Your task to perform on an android device: Open maps Image 0: 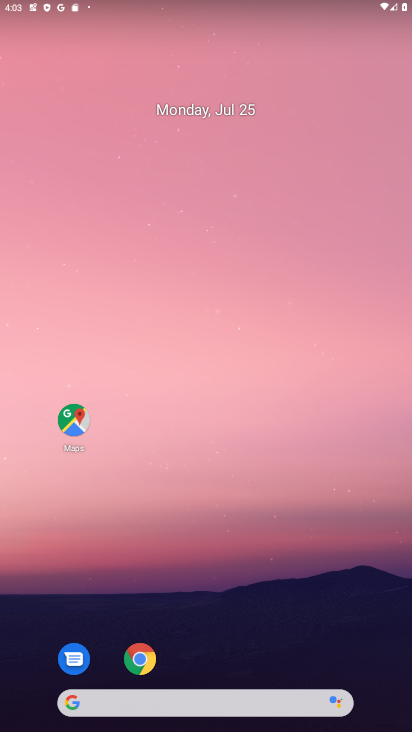
Step 0: click (75, 423)
Your task to perform on an android device: Open maps Image 1: 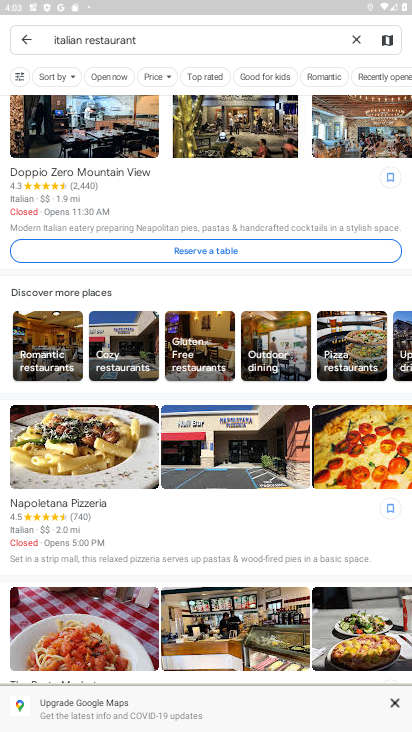
Step 1: click (354, 37)
Your task to perform on an android device: Open maps Image 2: 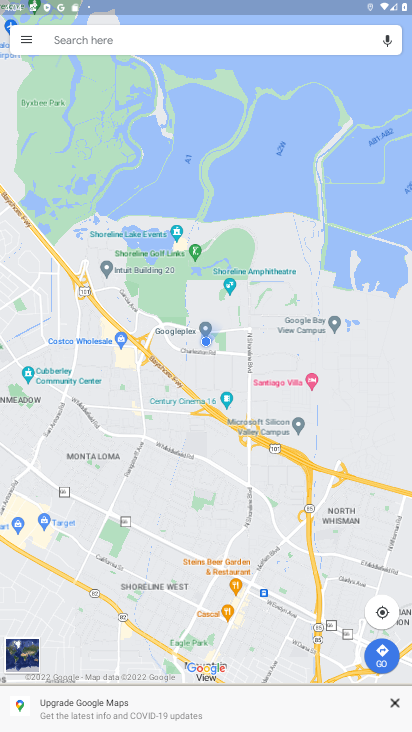
Step 2: task complete